Your task to perform on an android device: Open Google Image 0: 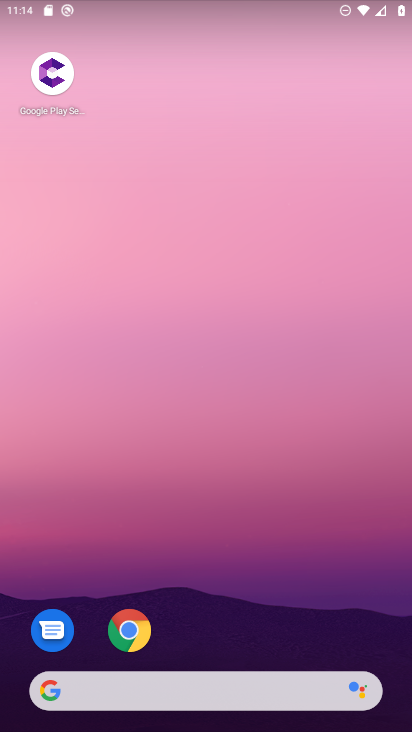
Step 0: drag from (216, 641) to (235, 245)
Your task to perform on an android device: Open Google Image 1: 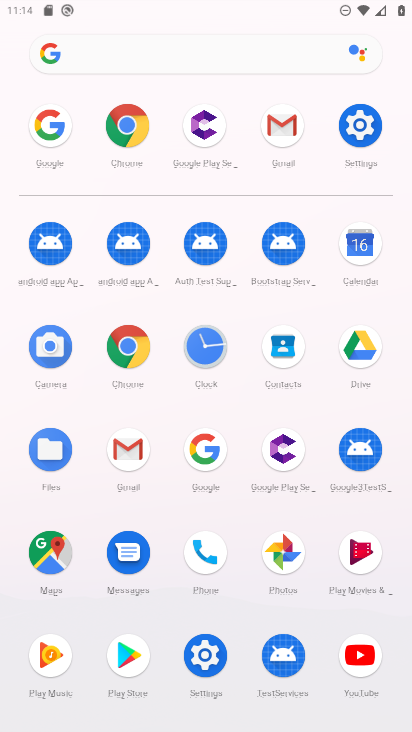
Step 1: click (195, 453)
Your task to perform on an android device: Open Google Image 2: 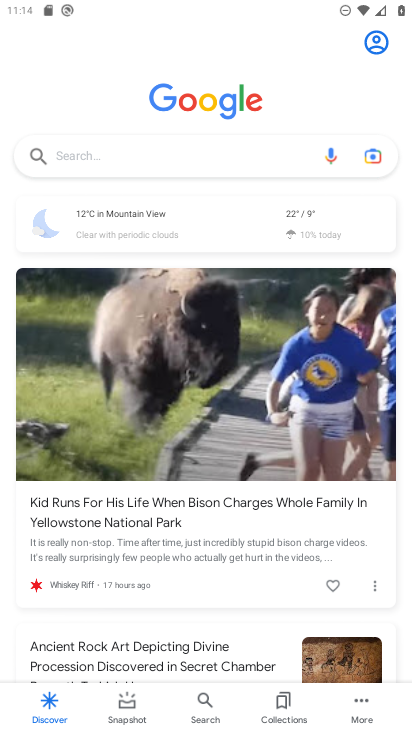
Step 2: task complete